Your task to perform on an android device: Add "panasonic triple a" to the cart on walmart.com, then select checkout. Image 0: 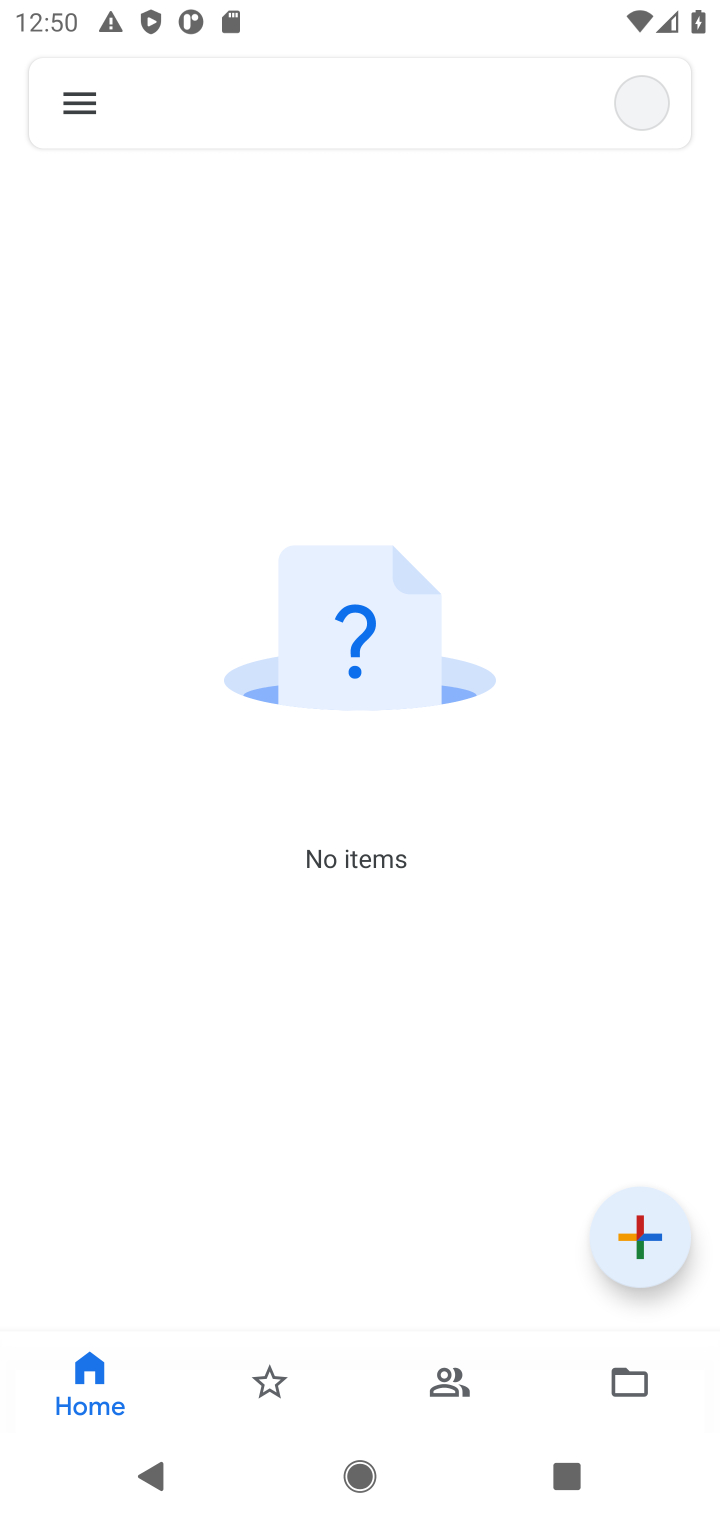
Step 0: click (213, 1376)
Your task to perform on an android device: Add "panasonic triple a" to the cart on walmart.com, then select checkout. Image 1: 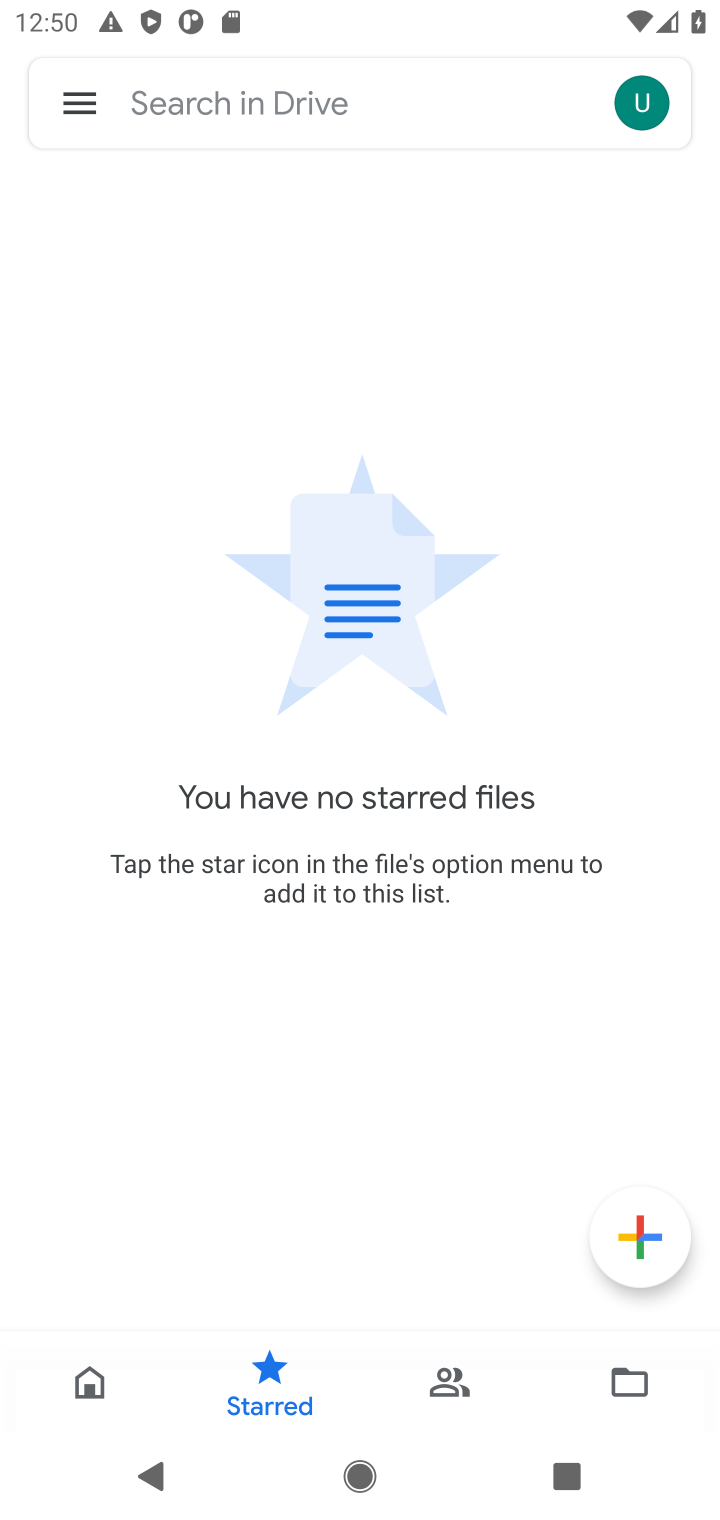
Step 1: press home button
Your task to perform on an android device: Add "panasonic triple a" to the cart on walmart.com, then select checkout. Image 2: 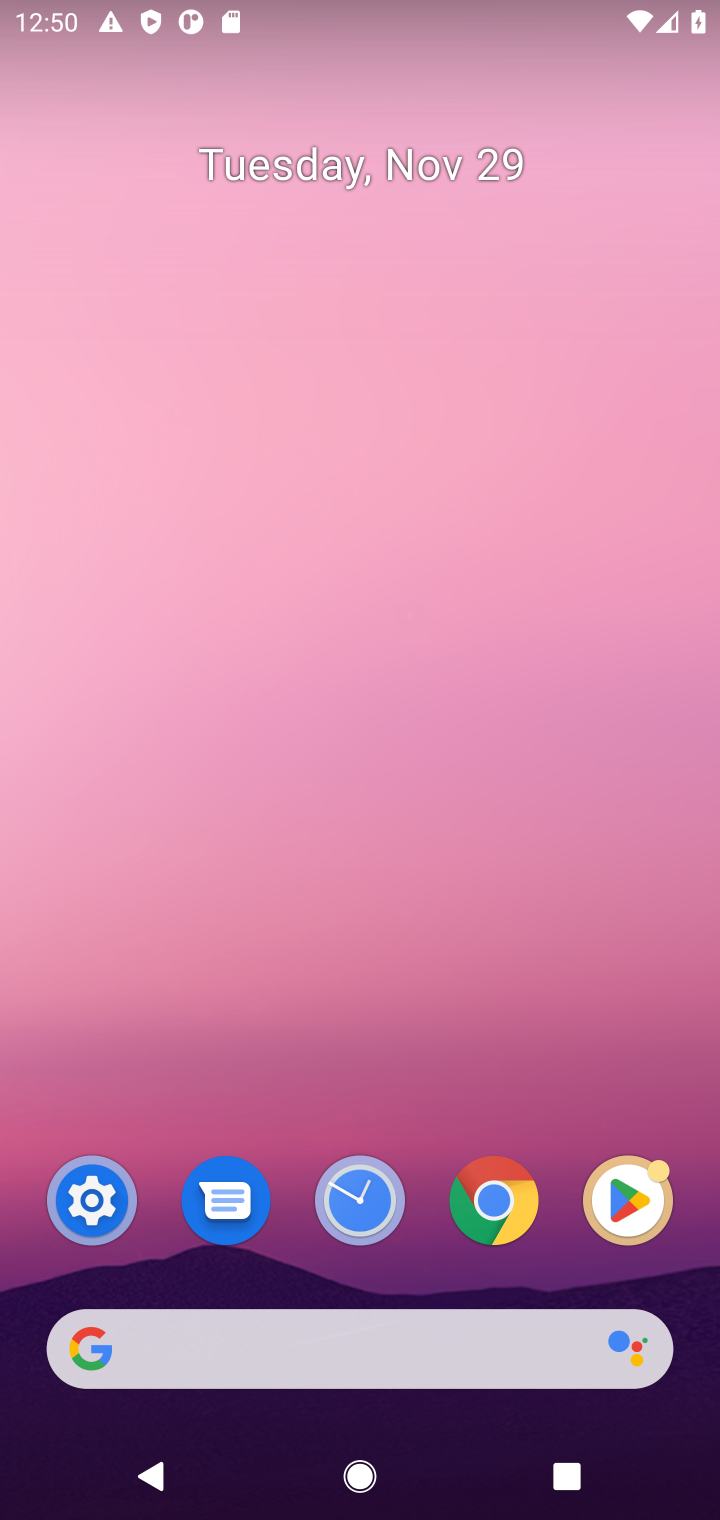
Step 2: click (466, 1360)
Your task to perform on an android device: Add "panasonic triple a" to the cart on walmart.com, then select checkout. Image 3: 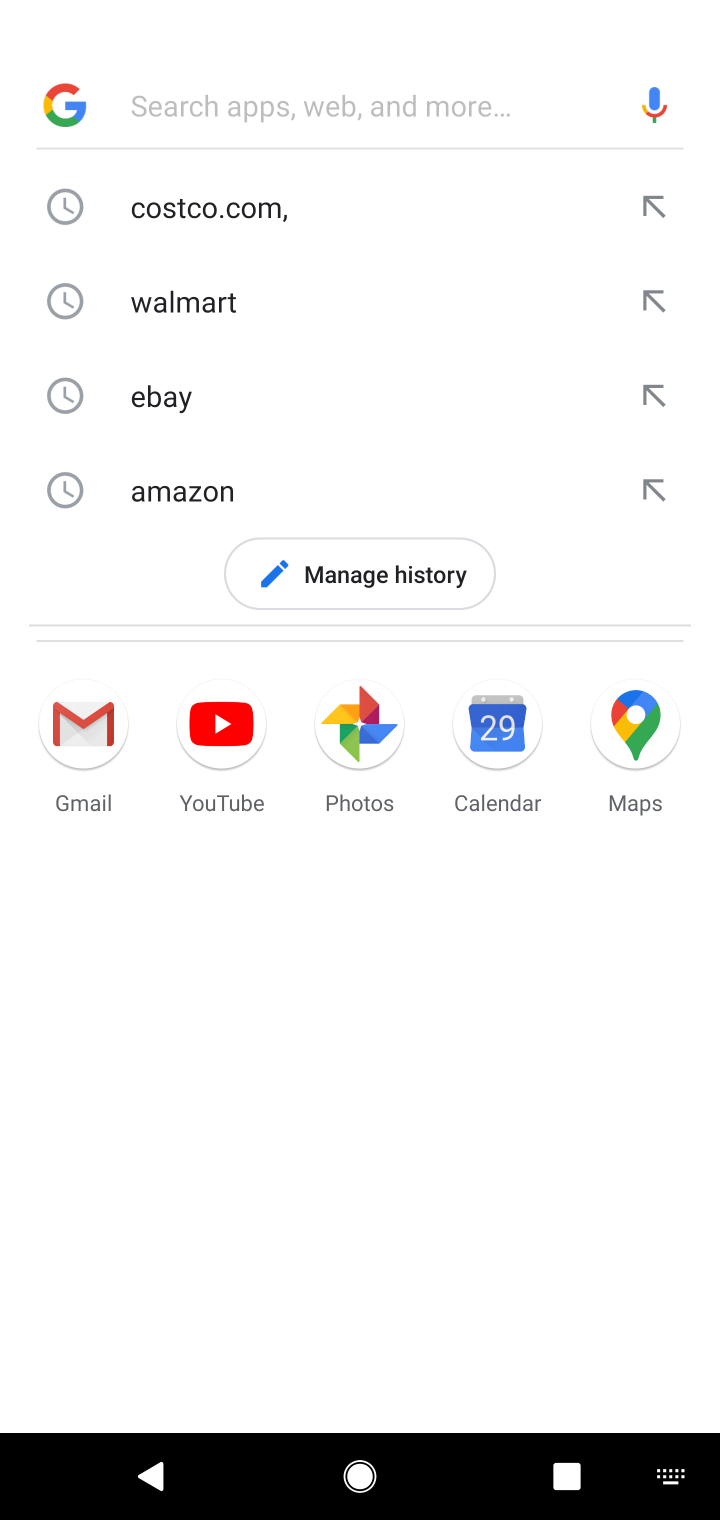
Step 3: type "walmart"
Your task to perform on an android device: Add "panasonic triple a" to the cart on walmart.com, then select checkout. Image 4: 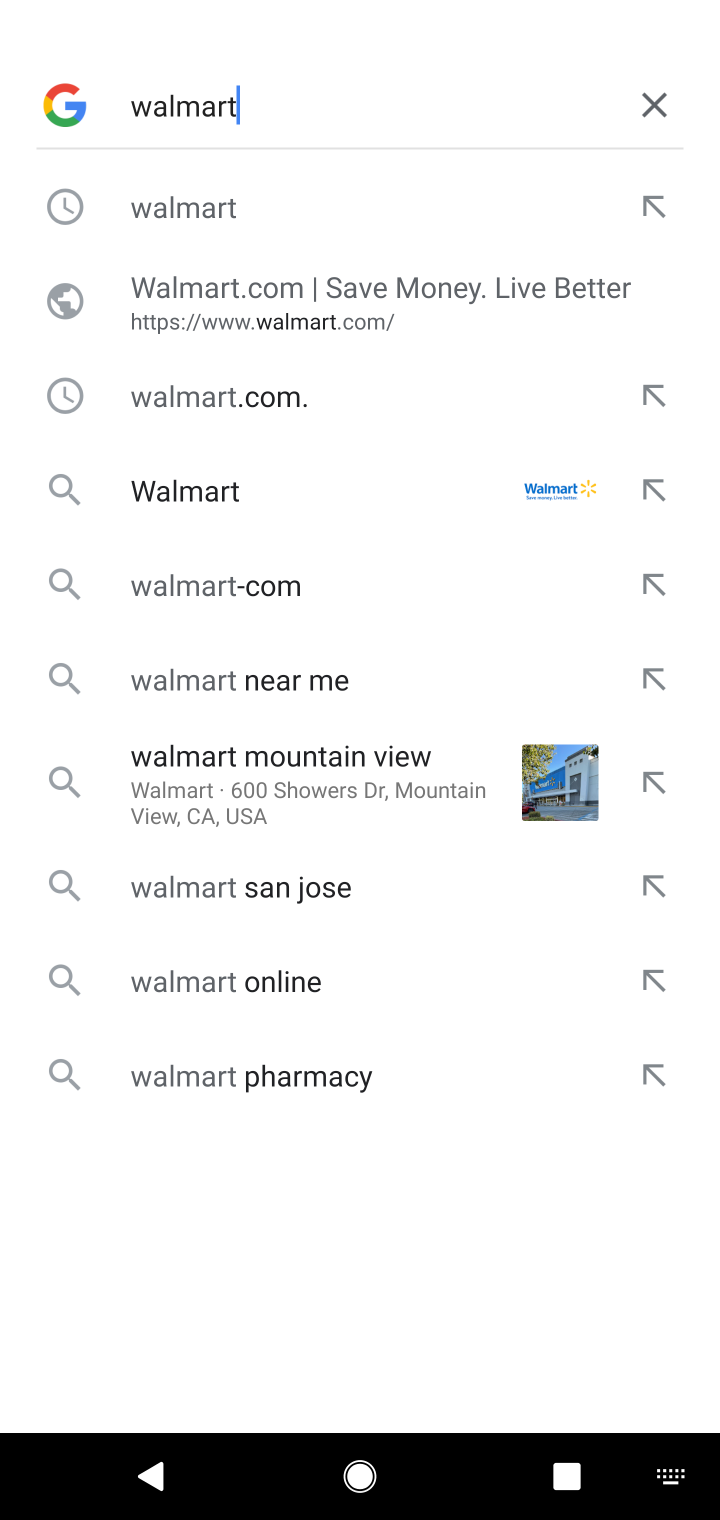
Step 4: click (226, 264)
Your task to perform on an android device: Add "panasonic triple a" to the cart on walmart.com, then select checkout. Image 5: 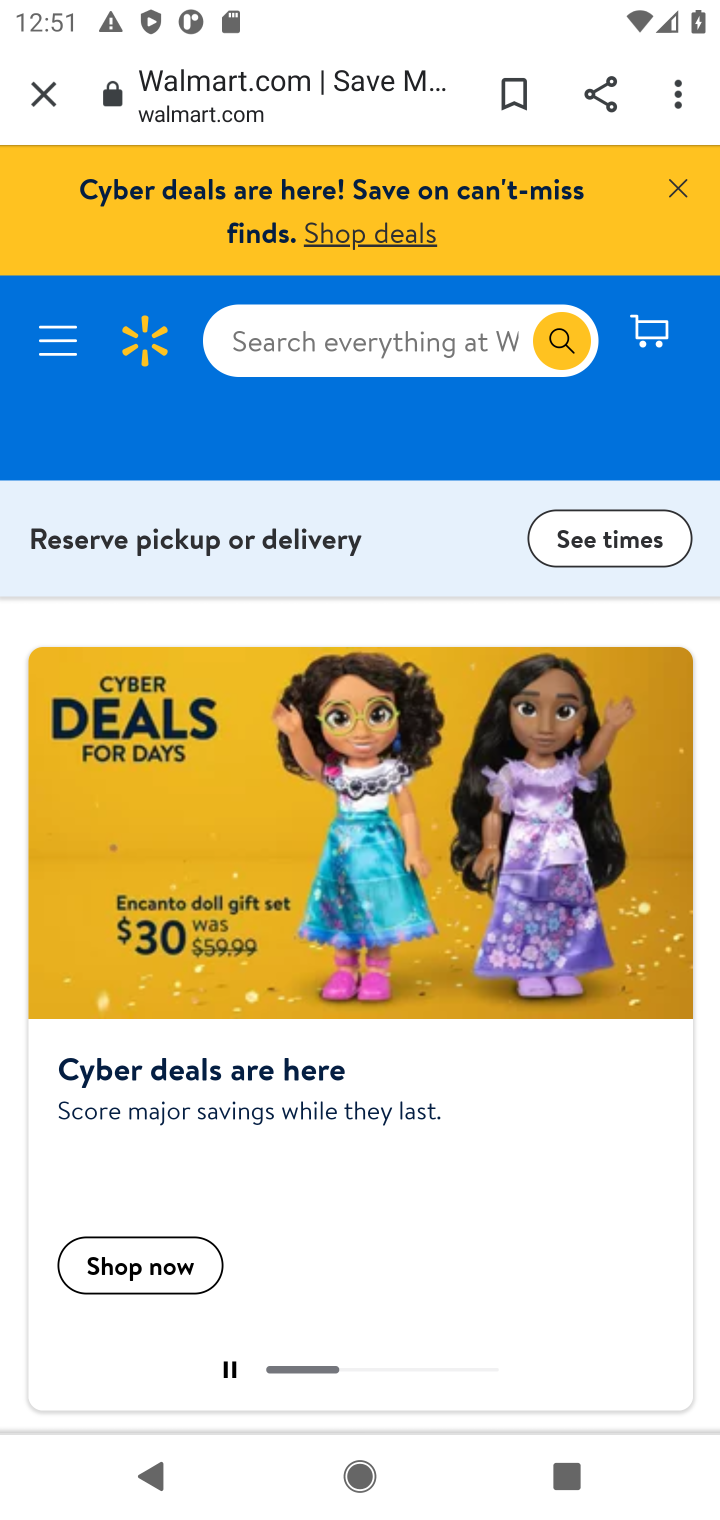
Step 5: task complete